Your task to perform on an android device: Go to wifi settings Image 0: 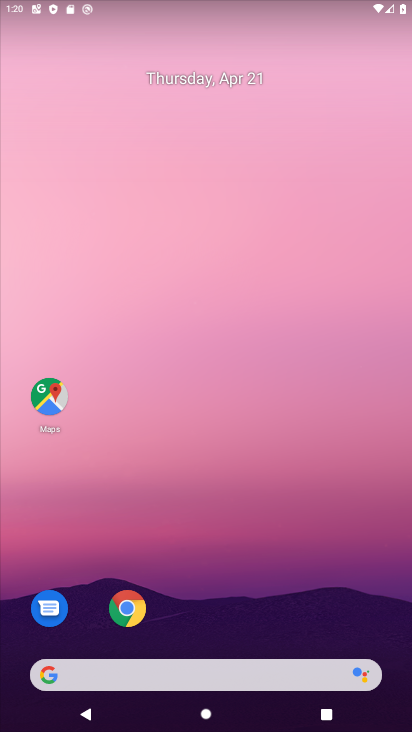
Step 0: drag from (309, 564) to (298, 122)
Your task to perform on an android device: Go to wifi settings Image 1: 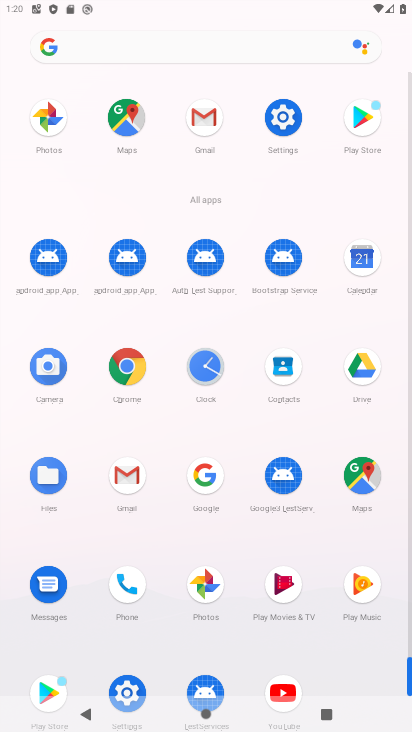
Step 1: click (298, 121)
Your task to perform on an android device: Go to wifi settings Image 2: 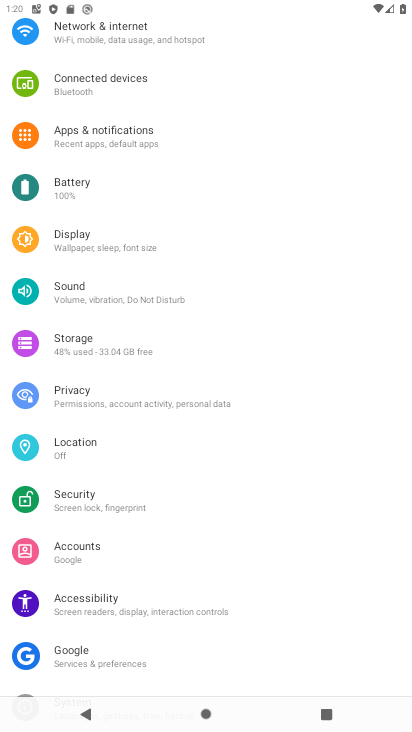
Step 2: drag from (298, 121) to (259, 515)
Your task to perform on an android device: Go to wifi settings Image 3: 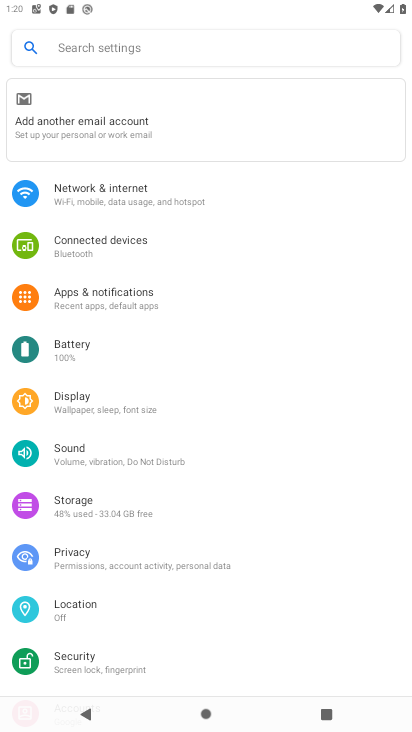
Step 3: click (150, 191)
Your task to perform on an android device: Go to wifi settings Image 4: 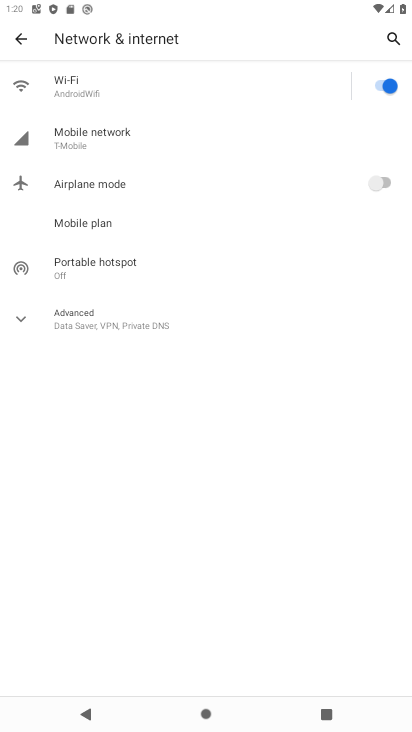
Step 4: click (105, 83)
Your task to perform on an android device: Go to wifi settings Image 5: 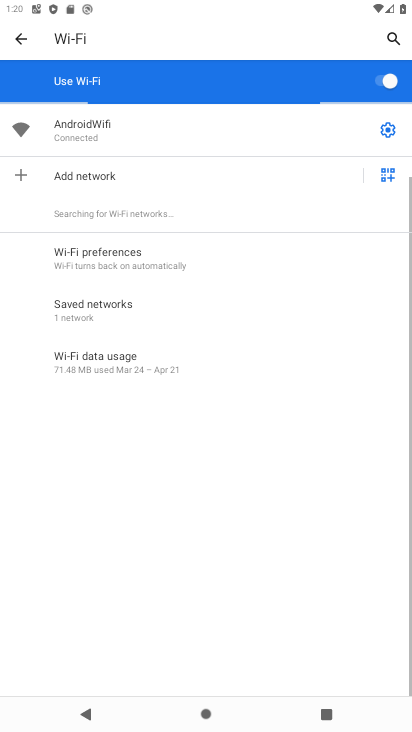
Step 5: task complete